Your task to perform on an android device: turn on data saver in the chrome app Image 0: 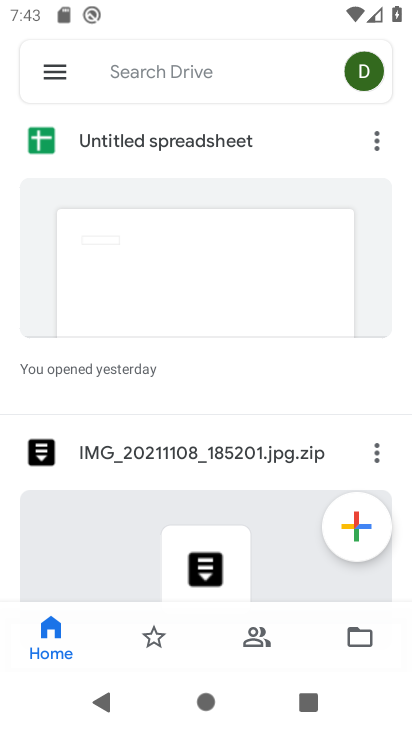
Step 0: press home button
Your task to perform on an android device: turn on data saver in the chrome app Image 1: 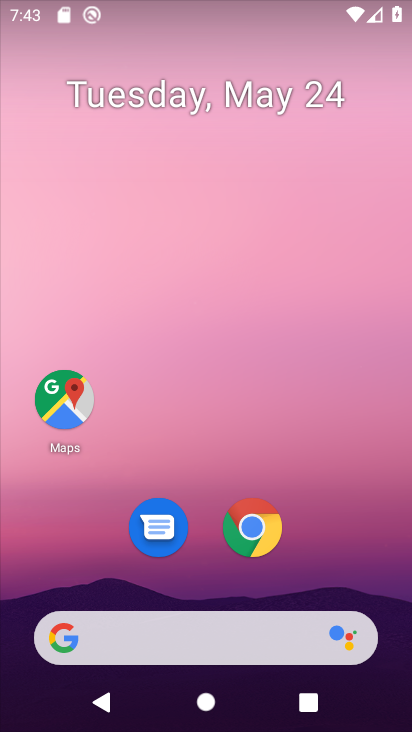
Step 1: drag from (324, 434) to (254, 121)
Your task to perform on an android device: turn on data saver in the chrome app Image 2: 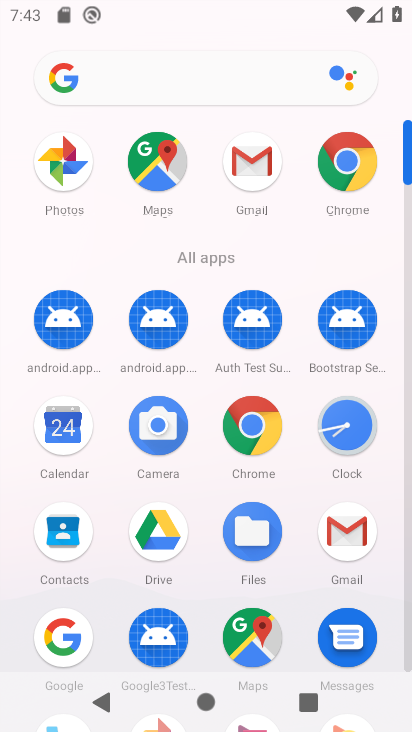
Step 2: click (255, 422)
Your task to perform on an android device: turn on data saver in the chrome app Image 3: 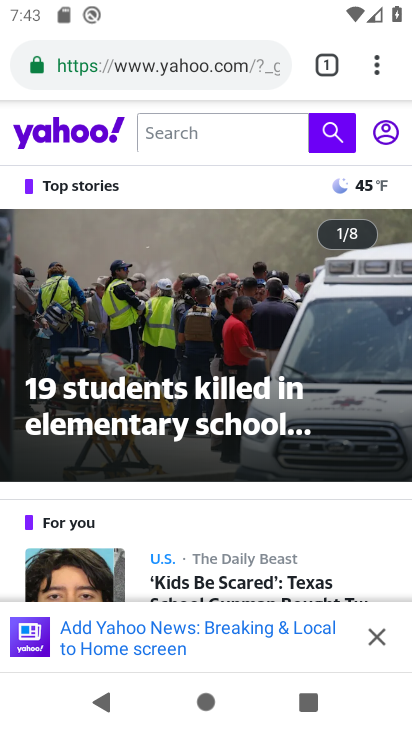
Step 3: click (380, 61)
Your task to perform on an android device: turn on data saver in the chrome app Image 4: 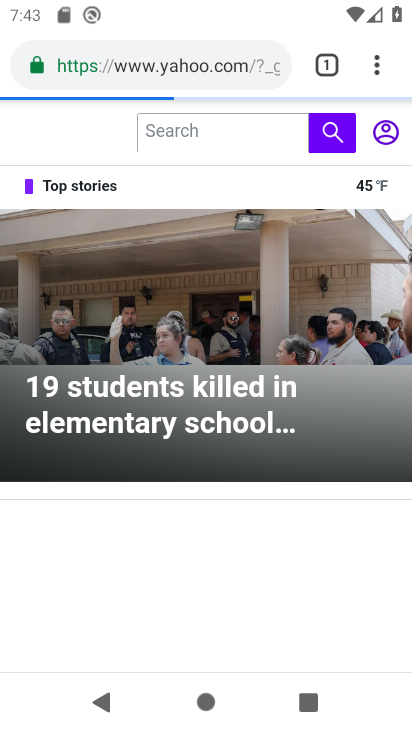
Step 4: drag from (377, 67) to (238, 585)
Your task to perform on an android device: turn on data saver in the chrome app Image 5: 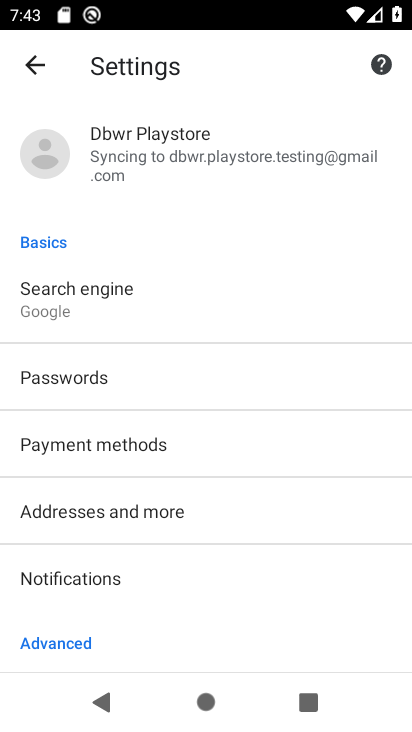
Step 5: drag from (242, 573) to (377, 121)
Your task to perform on an android device: turn on data saver in the chrome app Image 6: 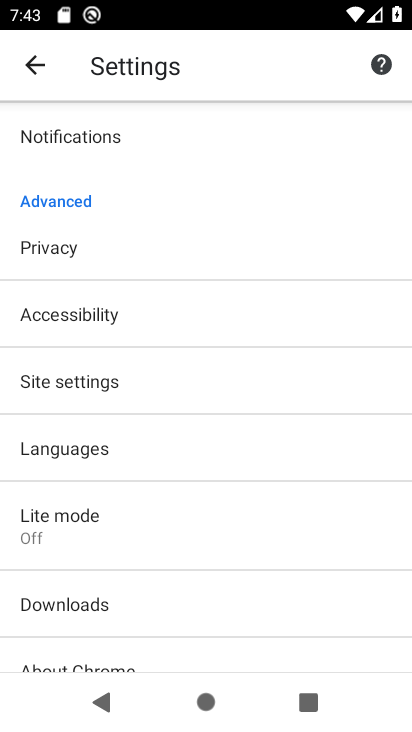
Step 6: click (82, 517)
Your task to perform on an android device: turn on data saver in the chrome app Image 7: 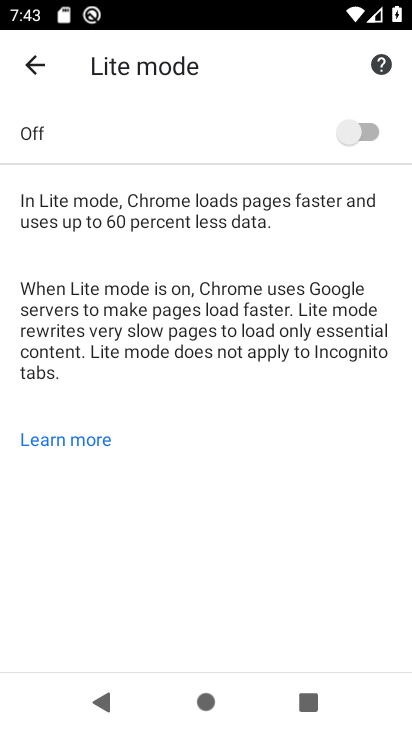
Step 7: click (360, 144)
Your task to perform on an android device: turn on data saver in the chrome app Image 8: 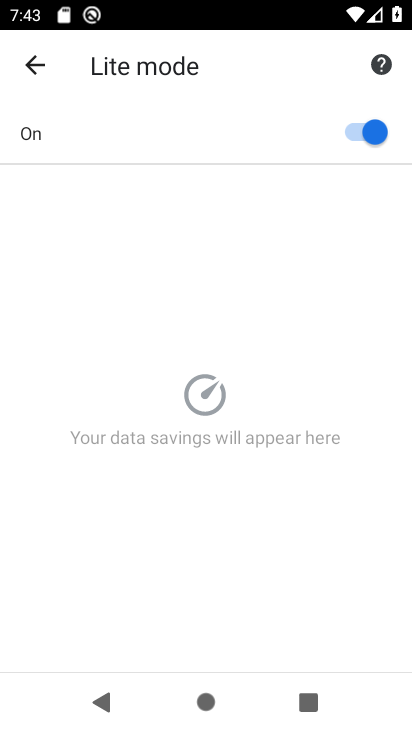
Step 8: task complete